Your task to perform on an android device: install app "Google Pay: Save, Pay, Manage" Image 0: 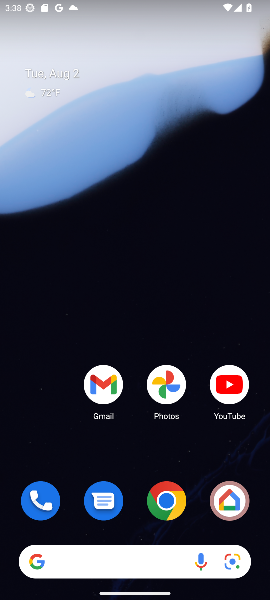
Step 0: drag from (133, 442) to (132, 6)
Your task to perform on an android device: install app "Google Pay: Save, Pay, Manage" Image 1: 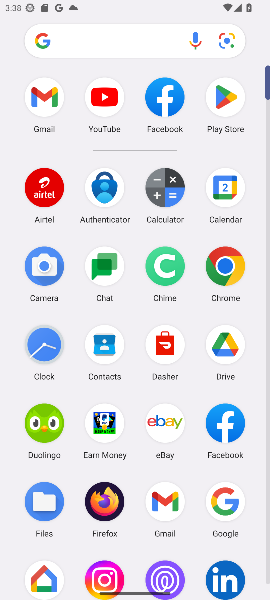
Step 1: click (219, 96)
Your task to perform on an android device: install app "Google Pay: Save, Pay, Manage" Image 2: 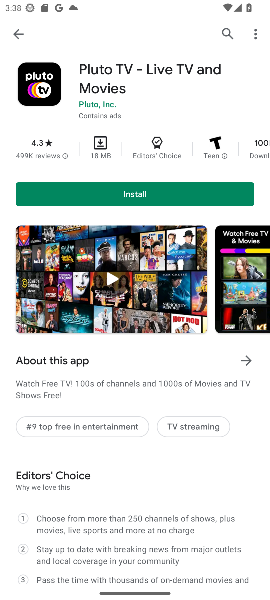
Step 2: click (223, 31)
Your task to perform on an android device: install app "Google Pay: Save, Pay, Manage" Image 3: 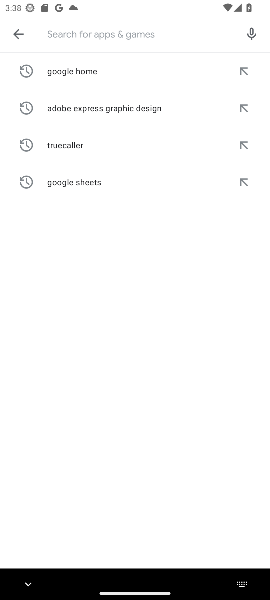
Step 3: type "Google Pay: Save, Pay, Manage"
Your task to perform on an android device: install app "Google Pay: Save, Pay, Manage" Image 4: 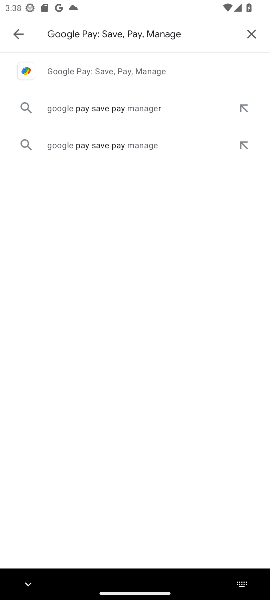
Step 4: click (80, 73)
Your task to perform on an android device: install app "Google Pay: Save, Pay, Manage" Image 5: 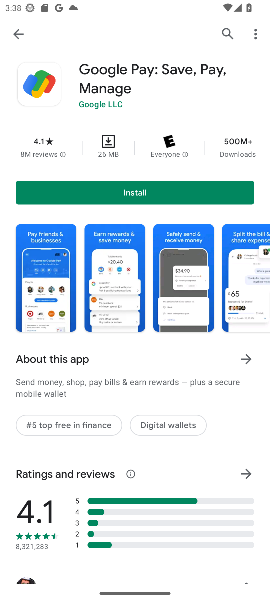
Step 5: click (123, 198)
Your task to perform on an android device: install app "Google Pay: Save, Pay, Manage" Image 6: 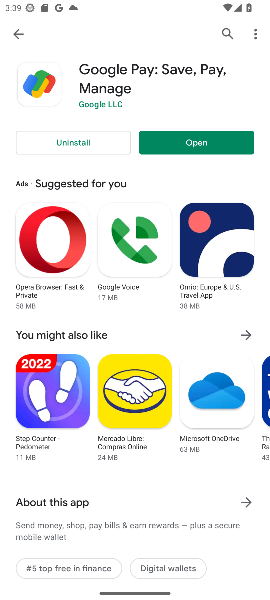
Step 6: task complete